Your task to perform on an android device: change the clock style Image 0: 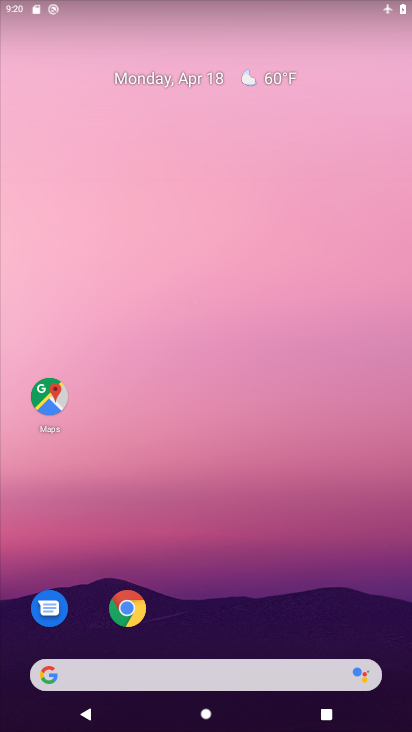
Step 0: drag from (330, 518) to (302, 134)
Your task to perform on an android device: change the clock style Image 1: 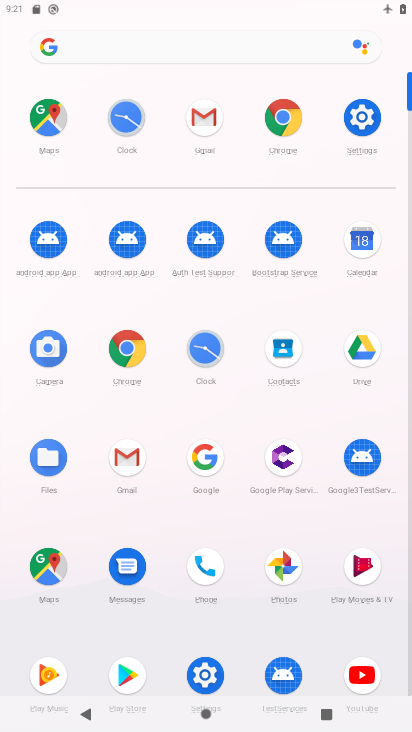
Step 1: click (198, 352)
Your task to perform on an android device: change the clock style Image 2: 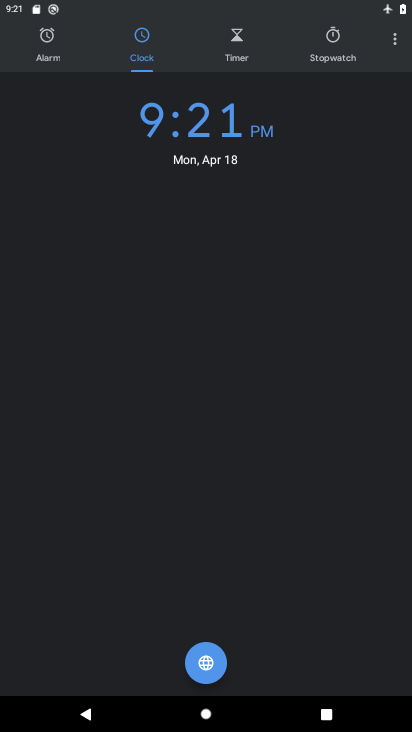
Step 2: click (399, 44)
Your task to perform on an android device: change the clock style Image 3: 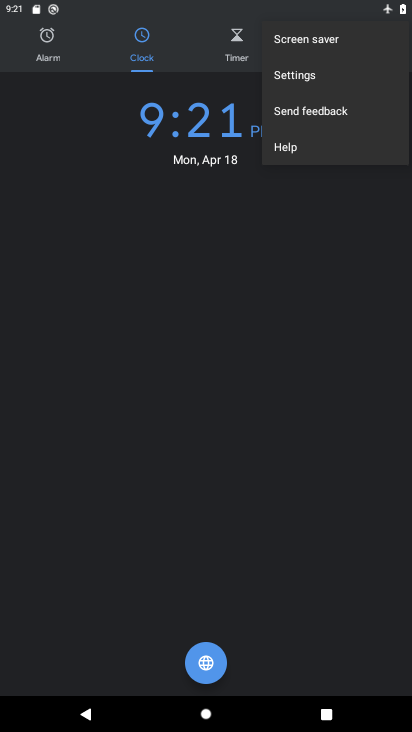
Step 3: click (283, 75)
Your task to perform on an android device: change the clock style Image 4: 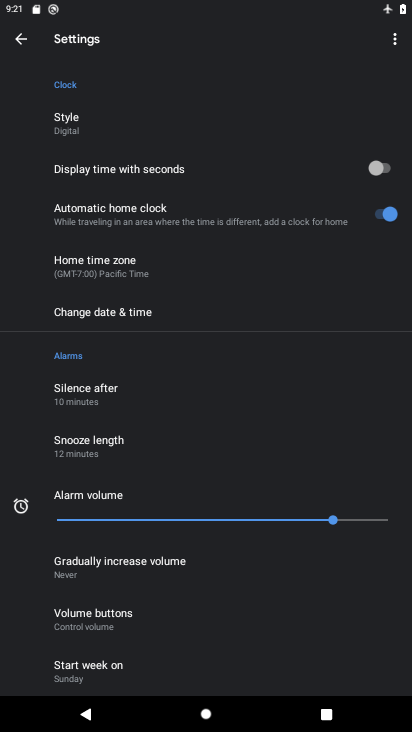
Step 4: click (76, 123)
Your task to perform on an android device: change the clock style Image 5: 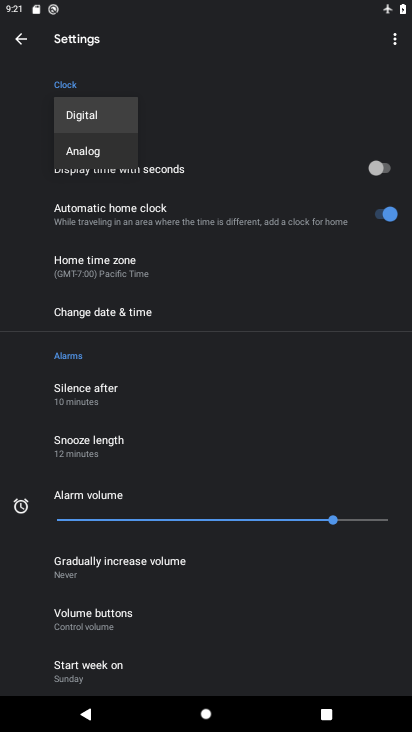
Step 5: click (96, 149)
Your task to perform on an android device: change the clock style Image 6: 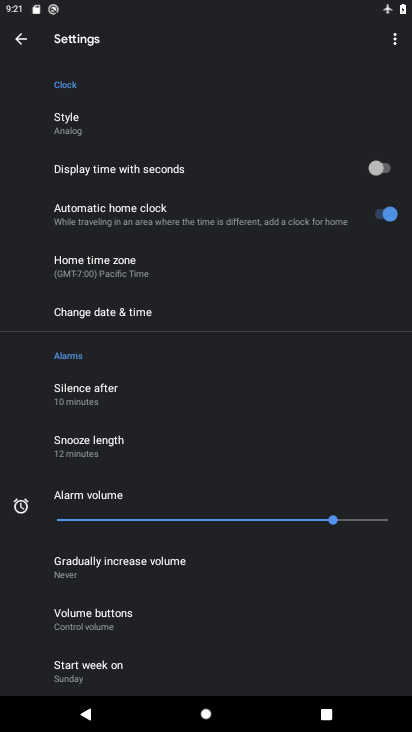
Step 6: task complete